Your task to perform on an android device: Go to calendar. Show me events next week Image 0: 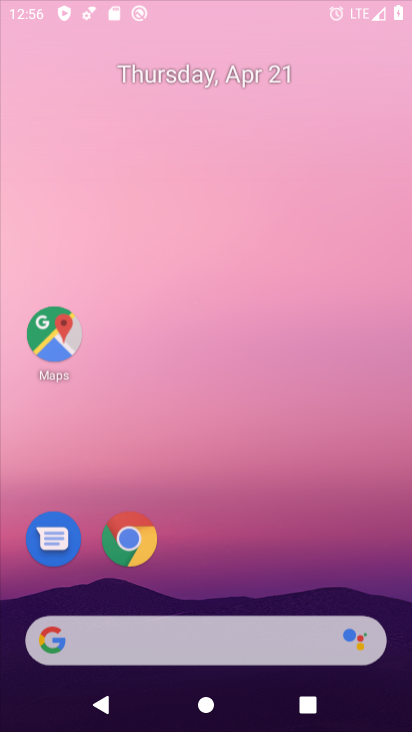
Step 0: drag from (253, 99) to (225, 126)
Your task to perform on an android device: Go to calendar. Show me events next week Image 1: 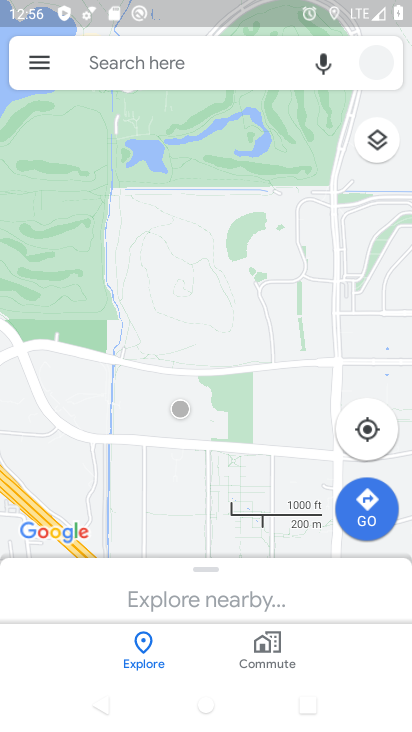
Step 1: press home button
Your task to perform on an android device: Go to calendar. Show me events next week Image 2: 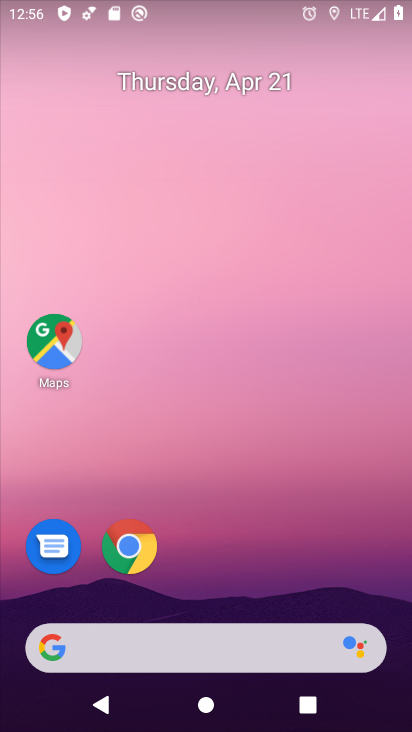
Step 2: drag from (209, 560) to (220, 93)
Your task to perform on an android device: Go to calendar. Show me events next week Image 3: 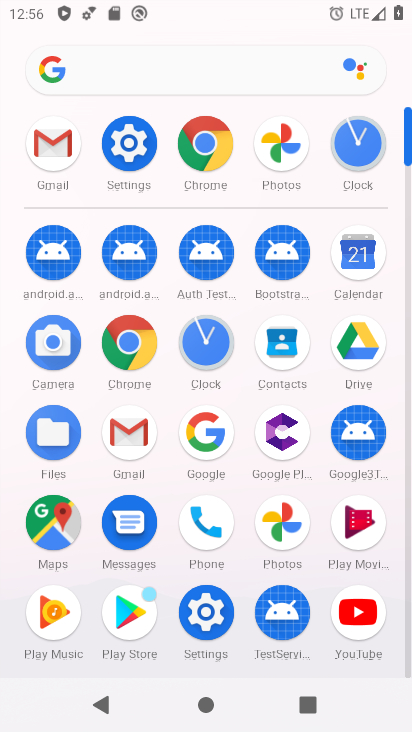
Step 3: click (367, 270)
Your task to perform on an android device: Go to calendar. Show me events next week Image 4: 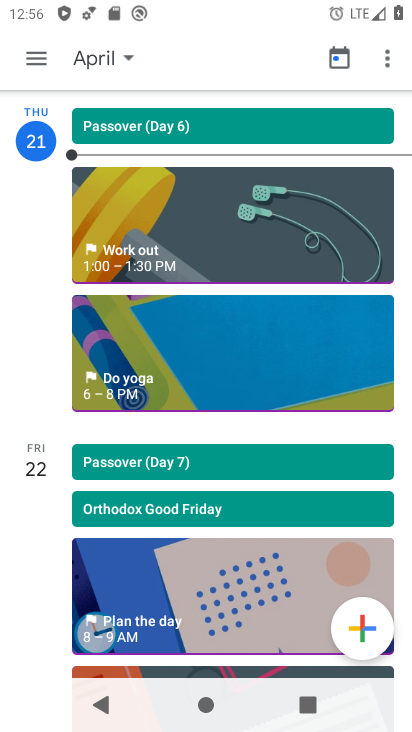
Step 4: click (84, 70)
Your task to perform on an android device: Go to calendar. Show me events next week Image 5: 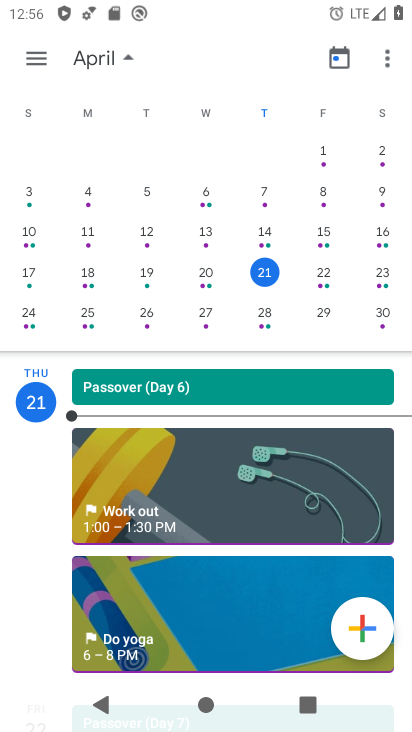
Step 5: click (37, 315)
Your task to perform on an android device: Go to calendar. Show me events next week Image 6: 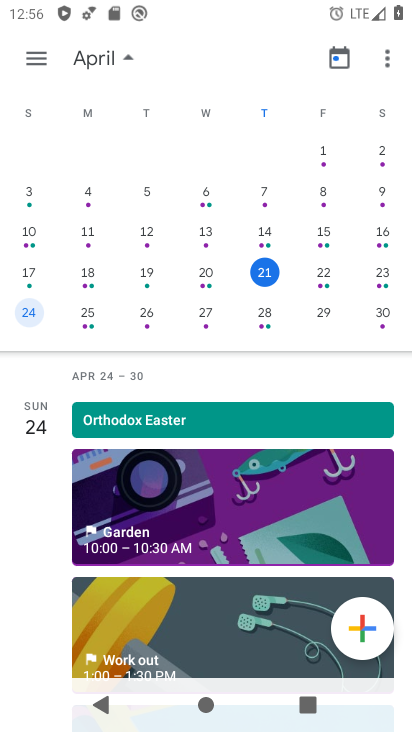
Step 6: click (90, 318)
Your task to perform on an android device: Go to calendar. Show me events next week Image 7: 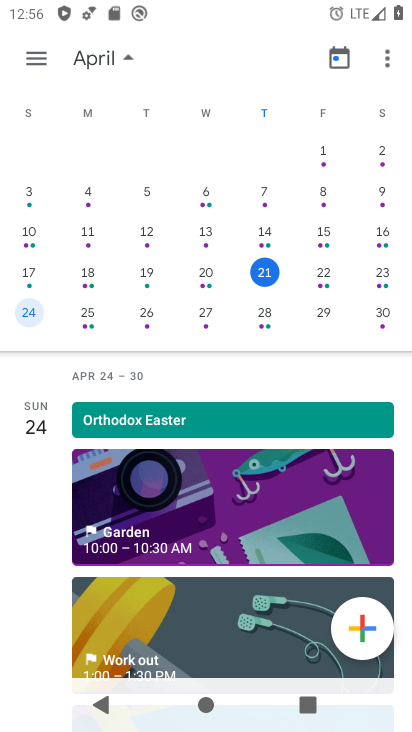
Step 7: click (158, 319)
Your task to perform on an android device: Go to calendar. Show me events next week Image 8: 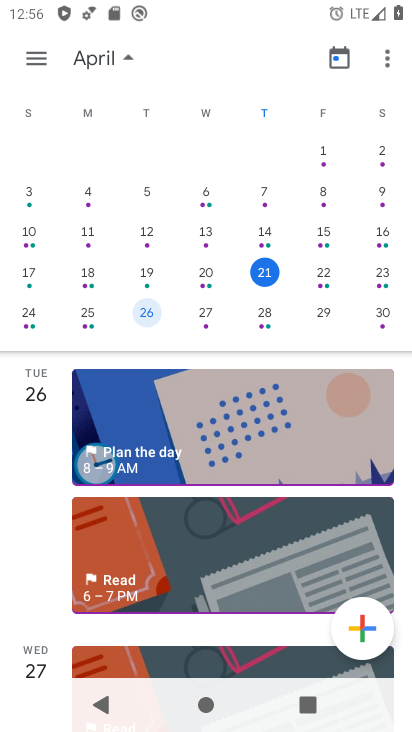
Step 8: click (213, 322)
Your task to perform on an android device: Go to calendar. Show me events next week Image 9: 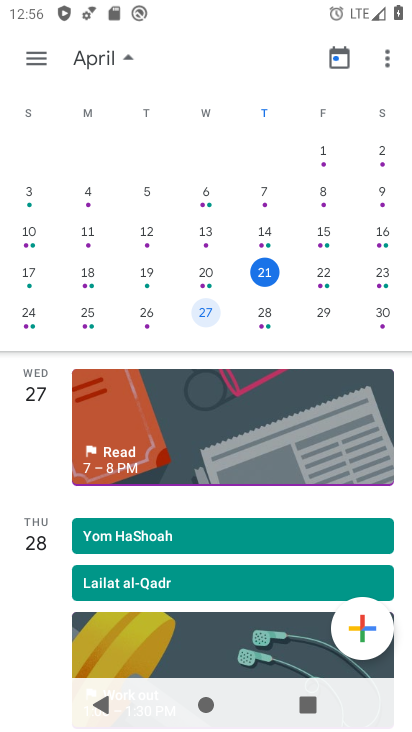
Step 9: click (267, 309)
Your task to perform on an android device: Go to calendar. Show me events next week Image 10: 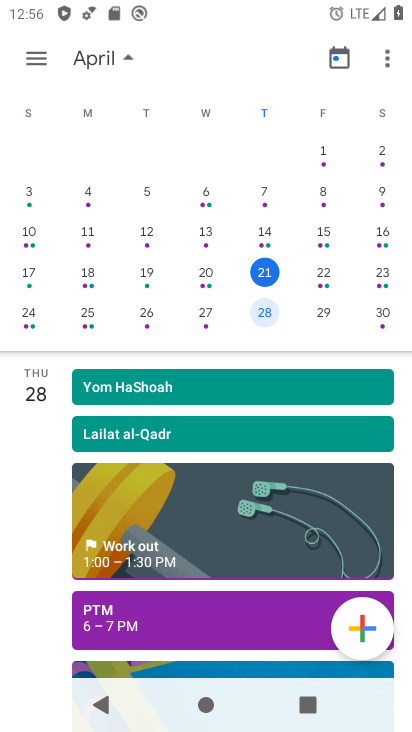
Step 10: click (340, 316)
Your task to perform on an android device: Go to calendar. Show me events next week Image 11: 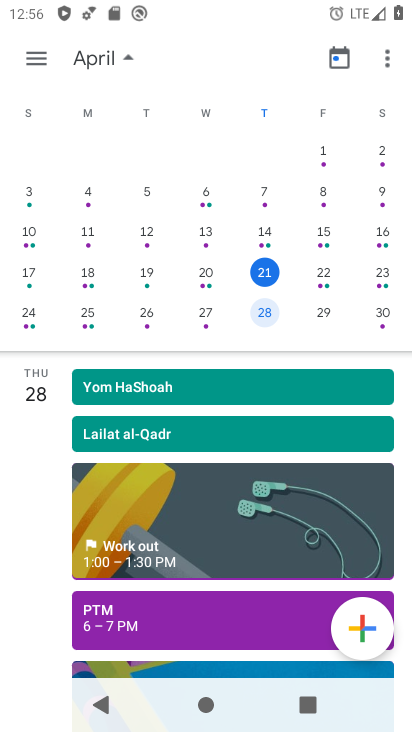
Step 11: click (386, 324)
Your task to perform on an android device: Go to calendar. Show me events next week Image 12: 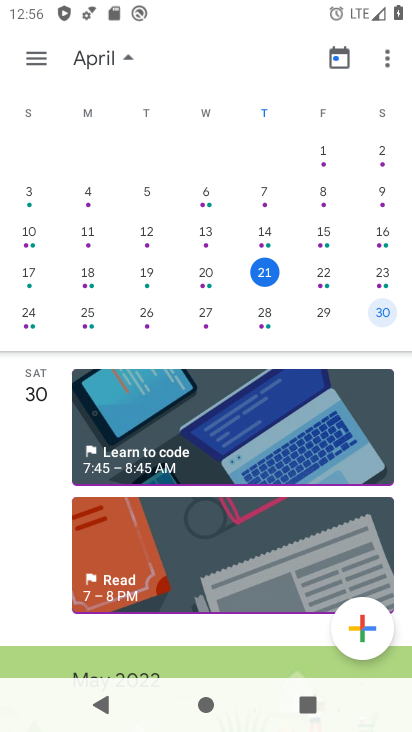
Step 12: task complete